Your task to perform on an android device: Go to sound settings Image 0: 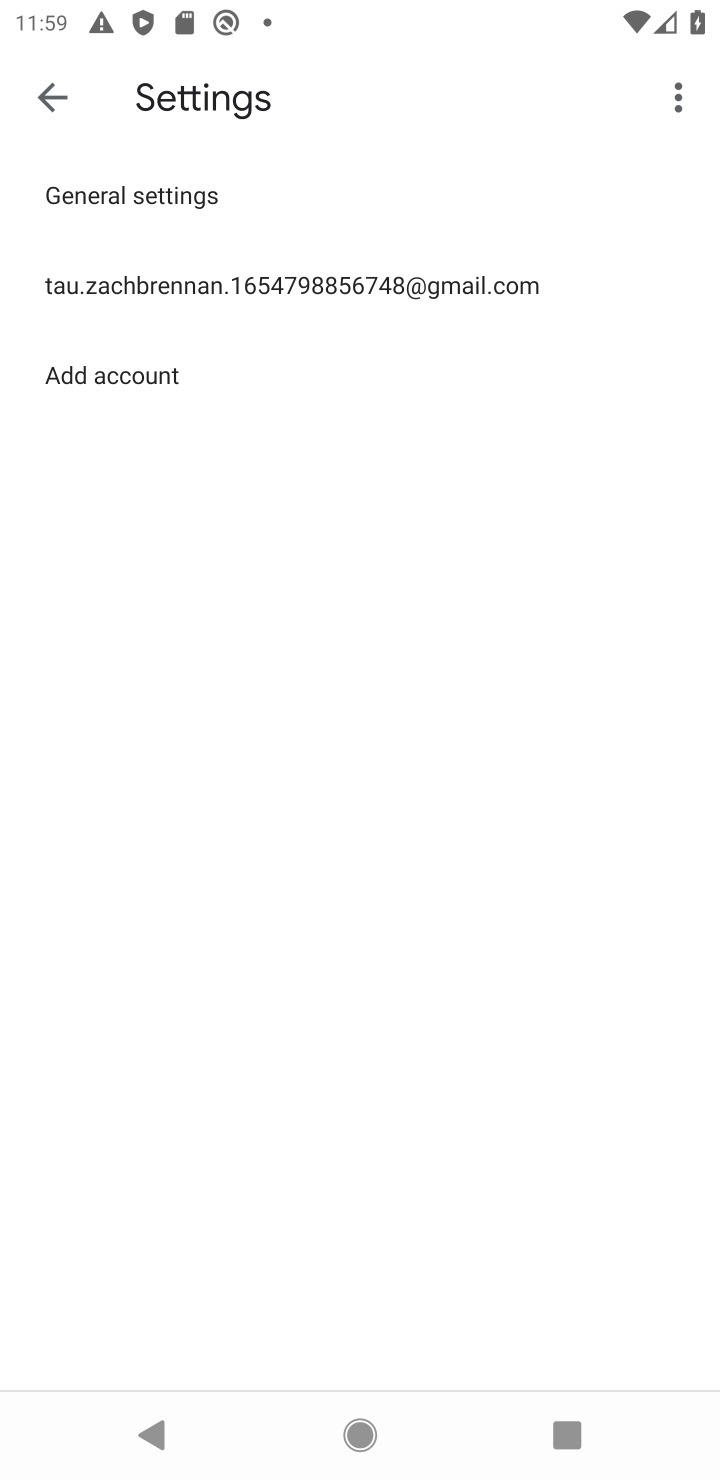
Step 0: press home button
Your task to perform on an android device: Go to sound settings Image 1: 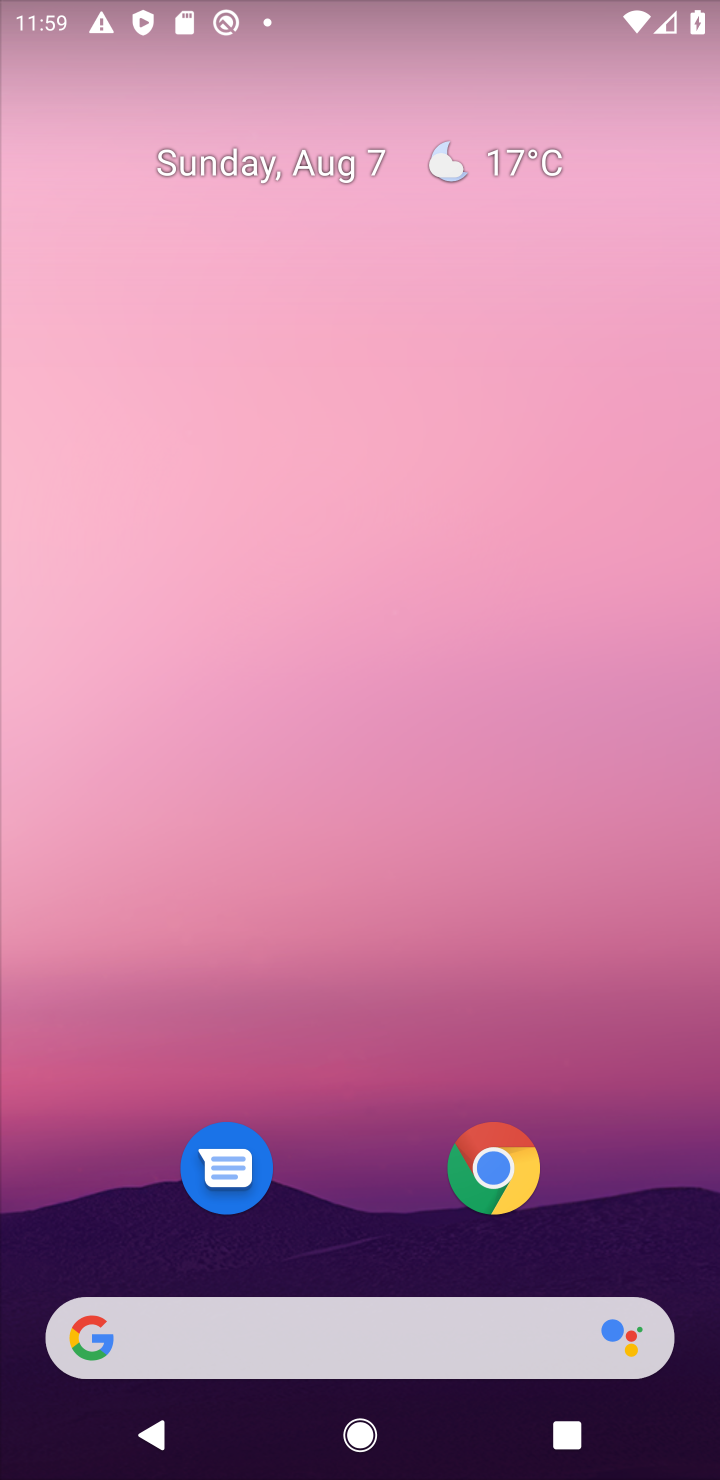
Step 1: drag from (23, 1407) to (351, 892)
Your task to perform on an android device: Go to sound settings Image 2: 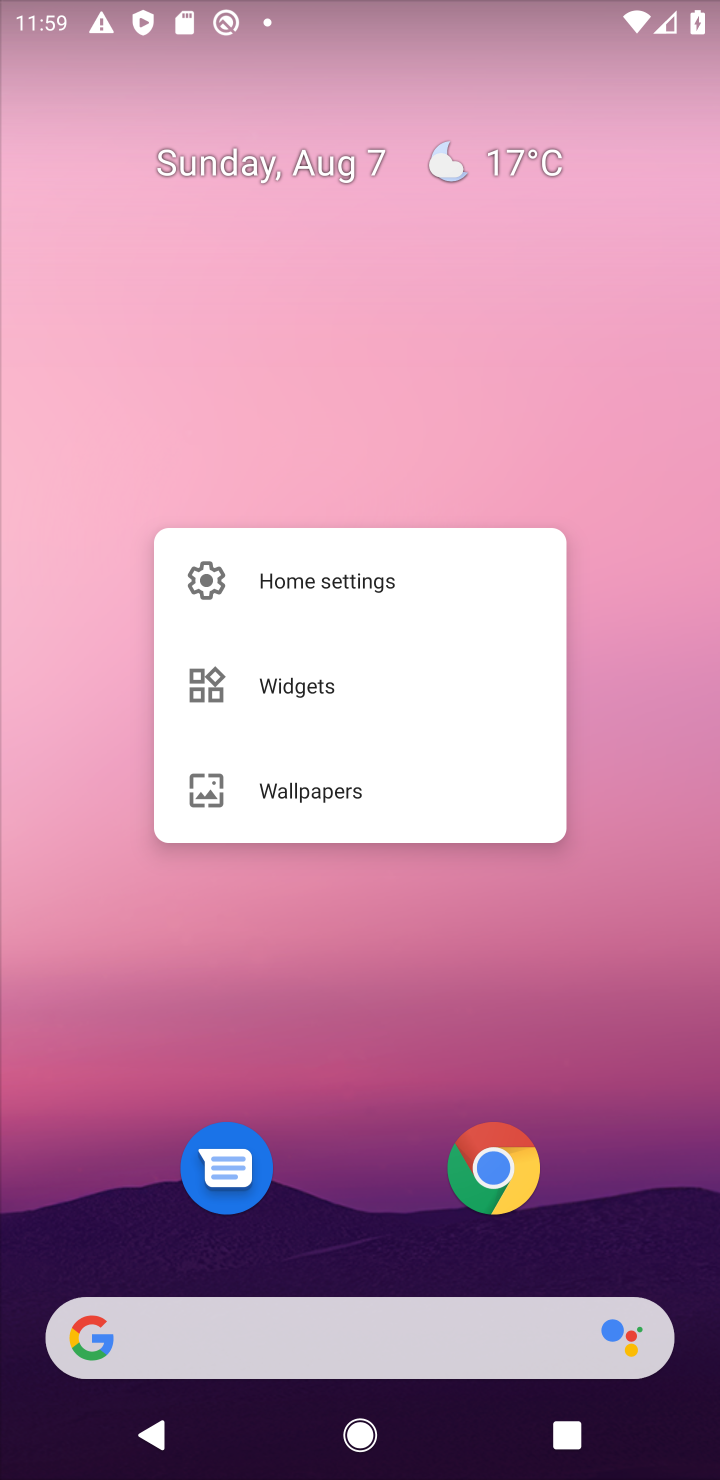
Step 2: click (99, 1416)
Your task to perform on an android device: Go to sound settings Image 3: 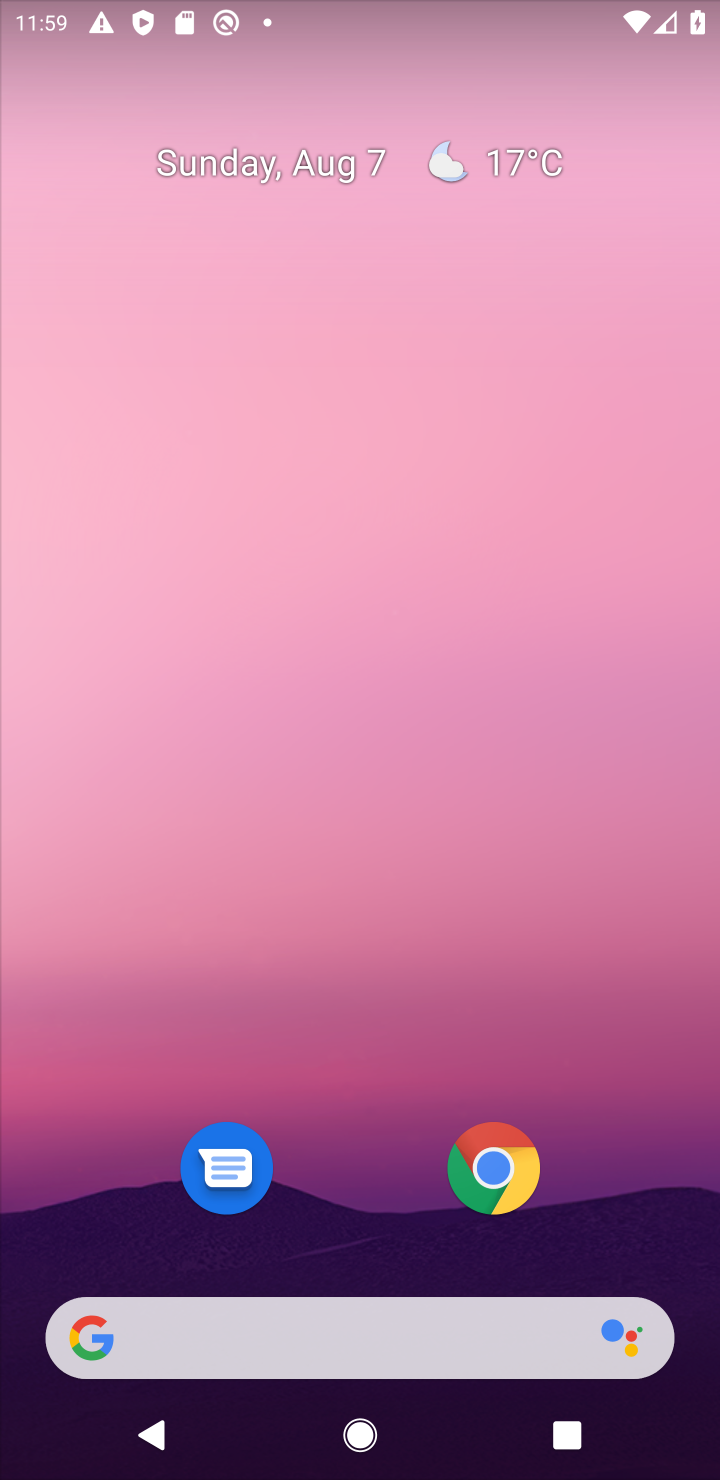
Step 3: drag from (54, 1393) to (259, 657)
Your task to perform on an android device: Go to sound settings Image 4: 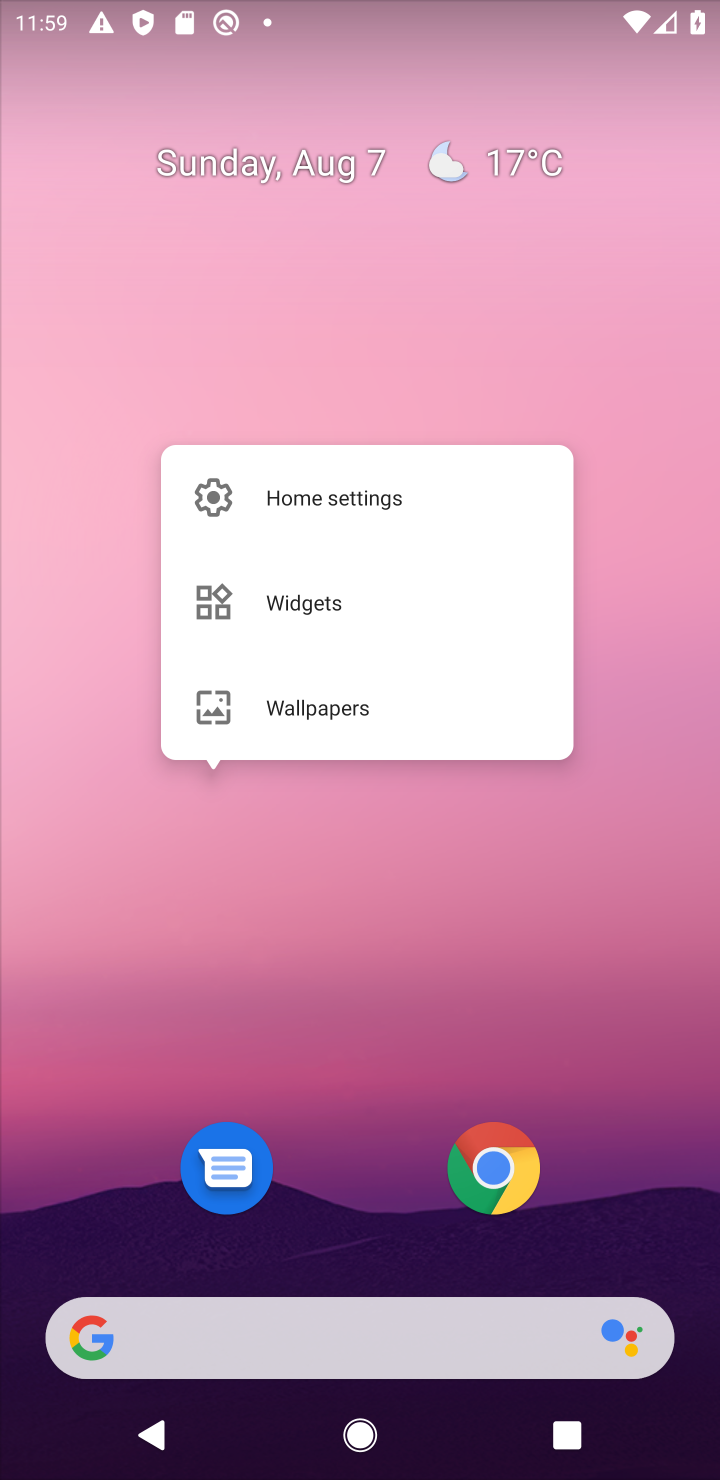
Step 4: drag from (65, 1446) to (329, 252)
Your task to perform on an android device: Go to sound settings Image 5: 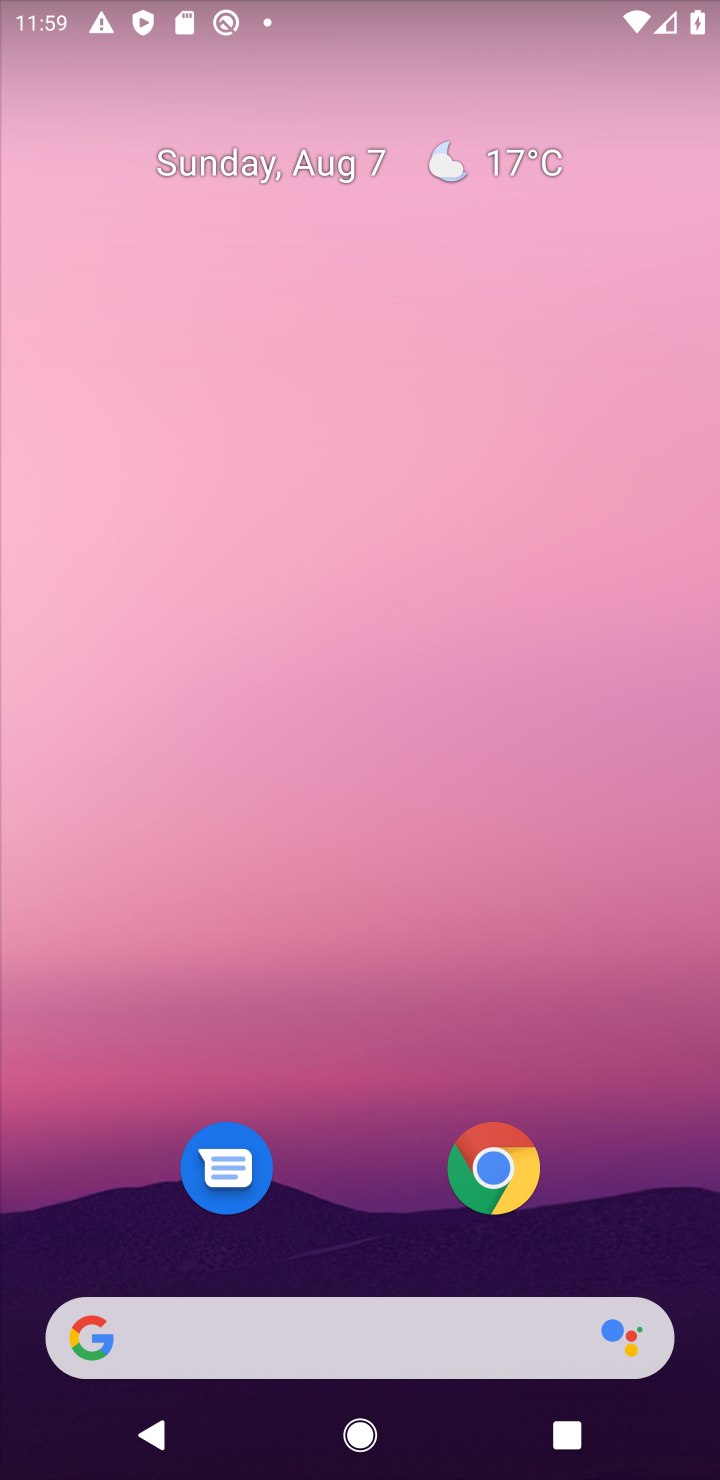
Step 5: drag from (68, 1432) to (241, 895)
Your task to perform on an android device: Go to sound settings Image 6: 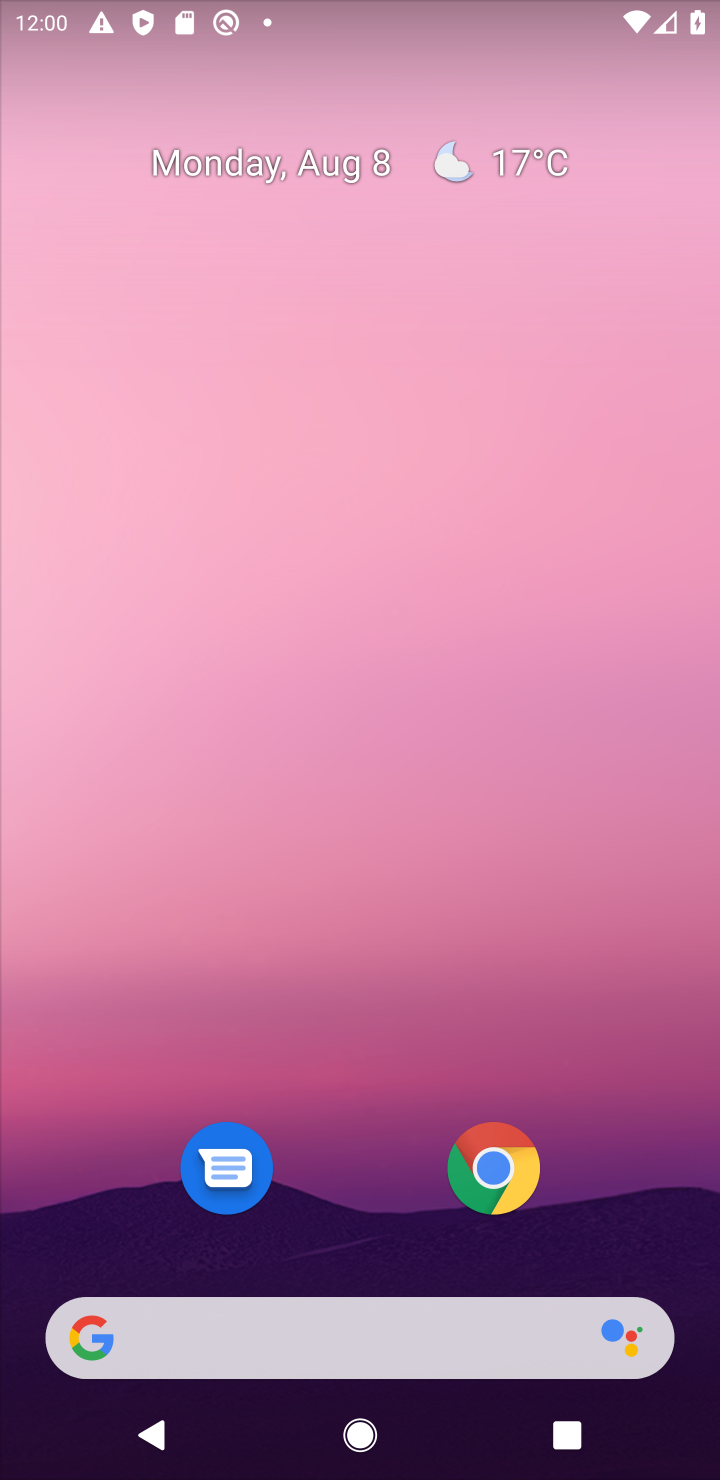
Step 6: drag from (100, 1446) to (337, 538)
Your task to perform on an android device: Go to sound settings Image 7: 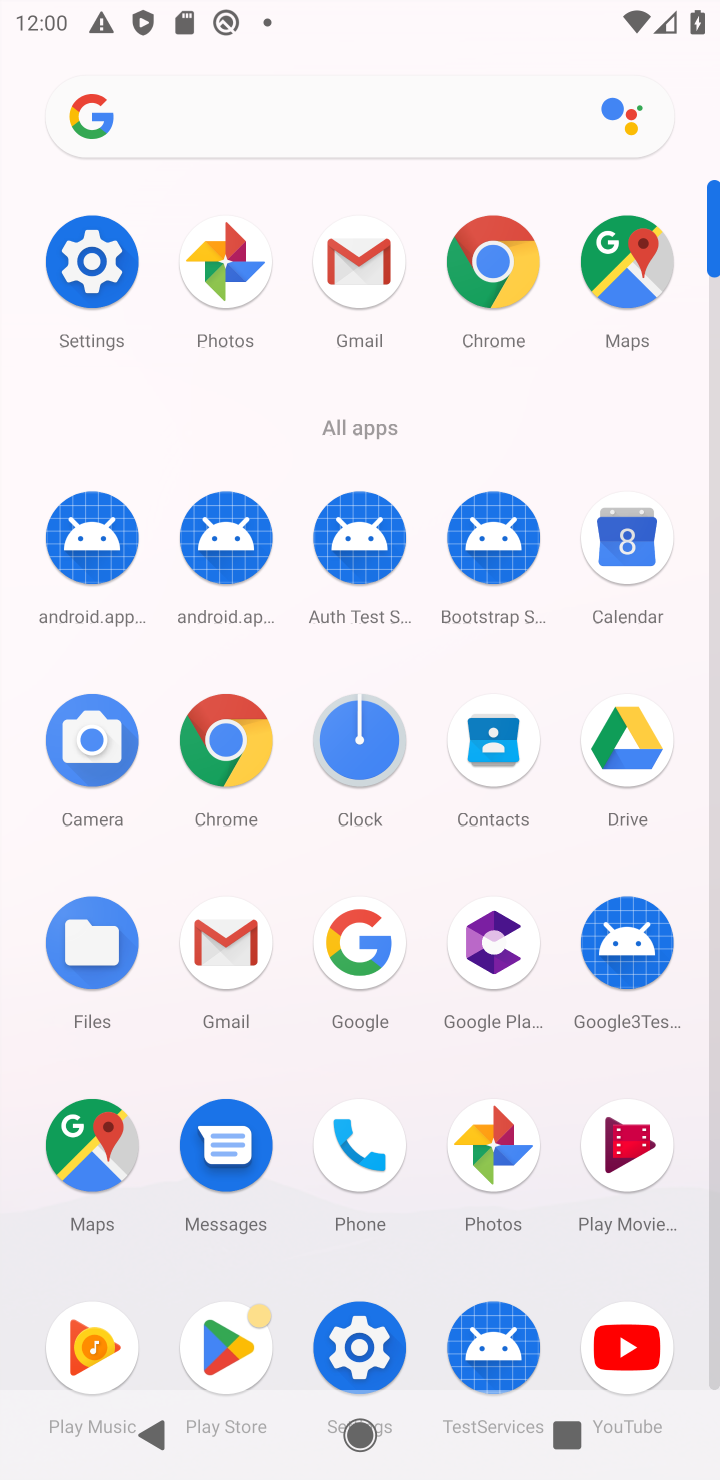
Step 7: click (368, 1322)
Your task to perform on an android device: Go to sound settings Image 8: 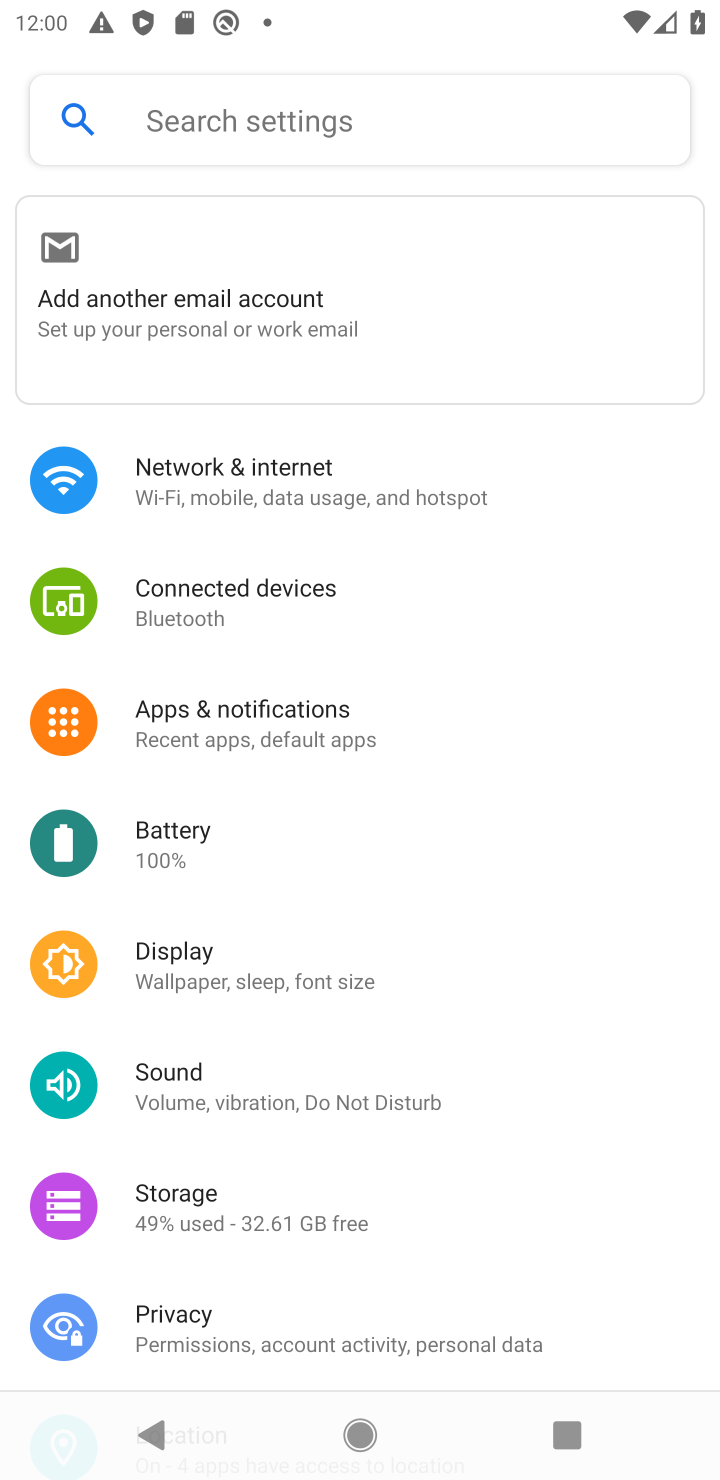
Step 8: click (184, 1077)
Your task to perform on an android device: Go to sound settings Image 9: 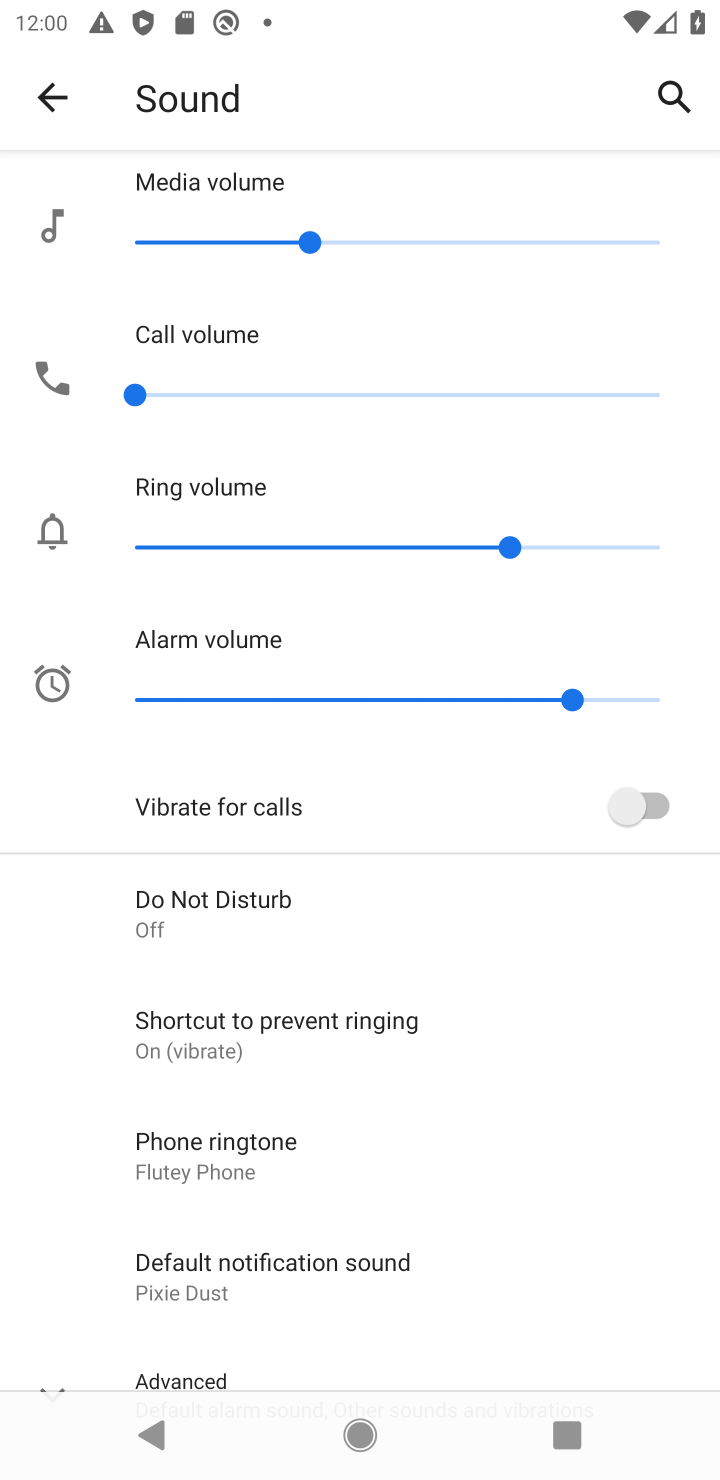
Step 9: task complete